Your task to perform on an android device: Show me recent news Image 0: 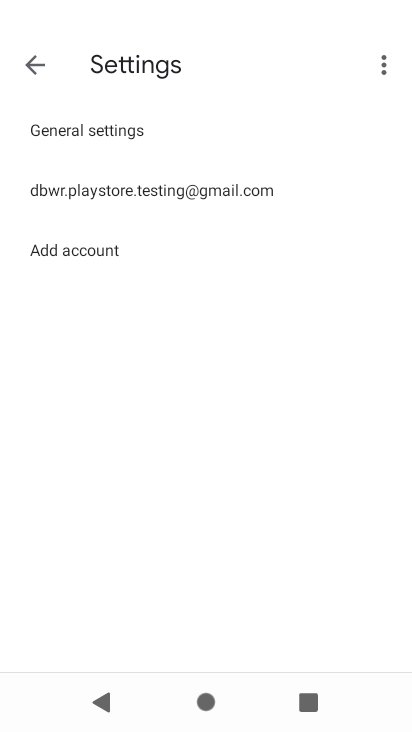
Step 0: press home button
Your task to perform on an android device: Show me recent news Image 1: 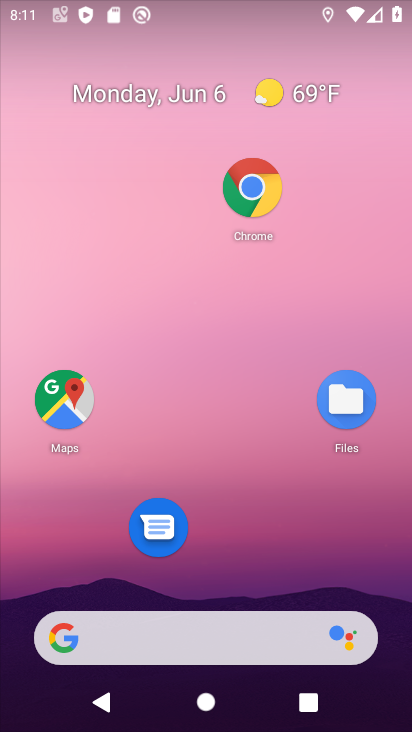
Step 1: drag from (229, 566) to (210, 18)
Your task to perform on an android device: Show me recent news Image 2: 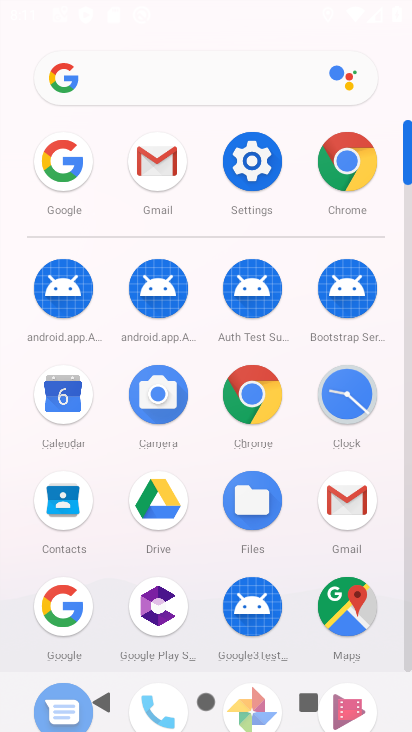
Step 2: click (71, 606)
Your task to perform on an android device: Show me recent news Image 3: 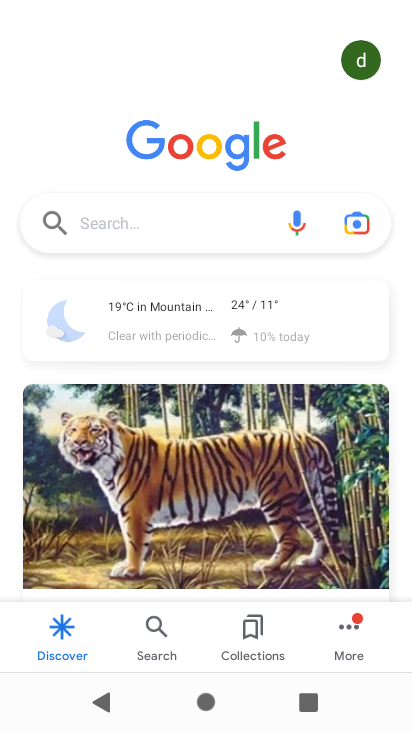
Step 3: click (168, 226)
Your task to perform on an android device: Show me recent news Image 4: 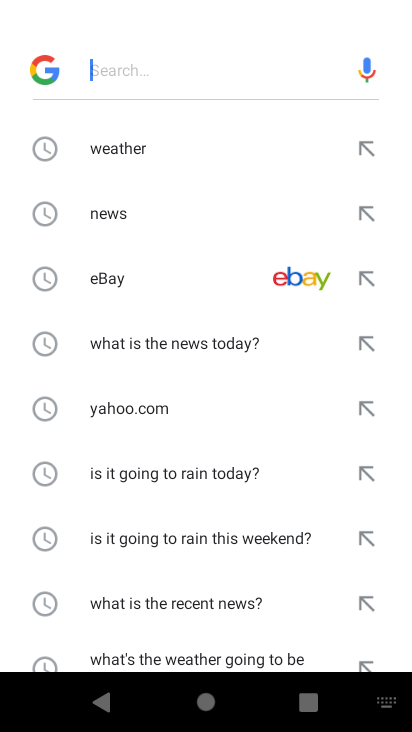
Step 4: click (142, 217)
Your task to perform on an android device: Show me recent news Image 5: 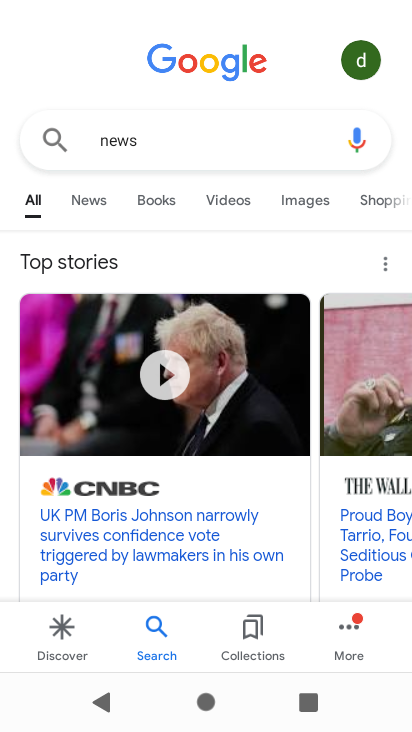
Step 5: task complete